Your task to perform on an android device: Open Chrome and go to the settings page Image 0: 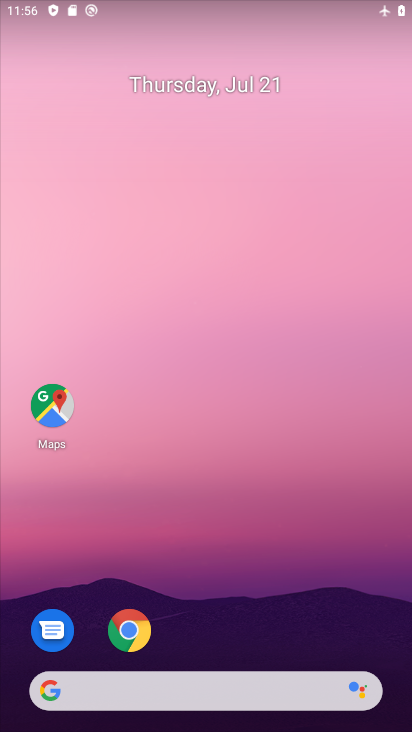
Step 0: press home button
Your task to perform on an android device: Open Chrome and go to the settings page Image 1: 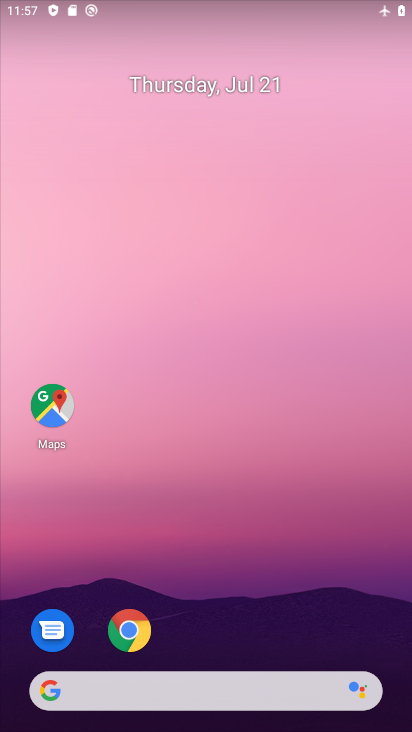
Step 1: drag from (368, 582) to (276, 12)
Your task to perform on an android device: Open Chrome and go to the settings page Image 2: 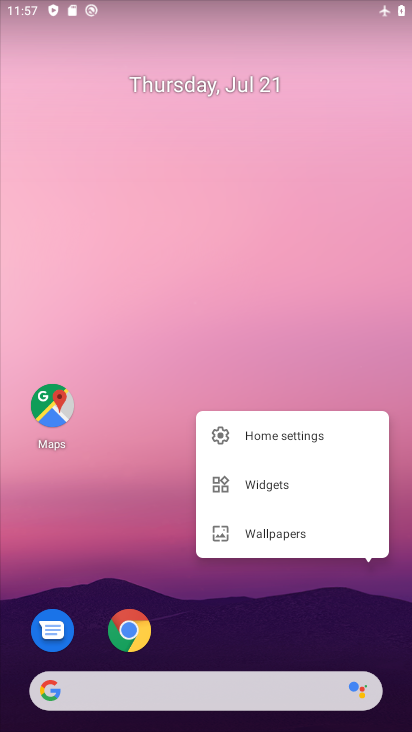
Step 2: click (118, 640)
Your task to perform on an android device: Open Chrome and go to the settings page Image 3: 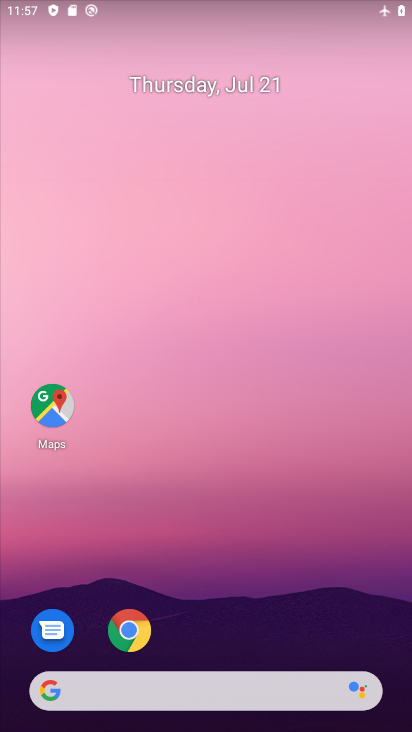
Step 3: click (136, 618)
Your task to perform on an android device: Open Chrome and go to the settings page Image 4: 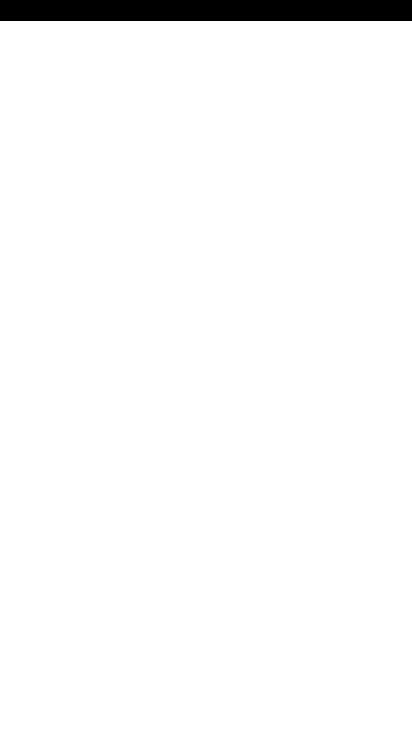
Step 4: click (141, 633)
Your task to perform on an android device: Open Chrome and go to the settings page Image 5: 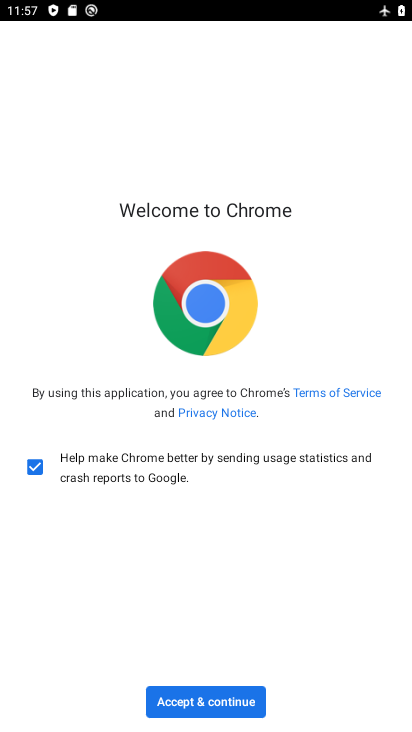
Step 5: click (243, 705)
Your task to perform on an android device: Open Chrome and go to the settings page Image 6: 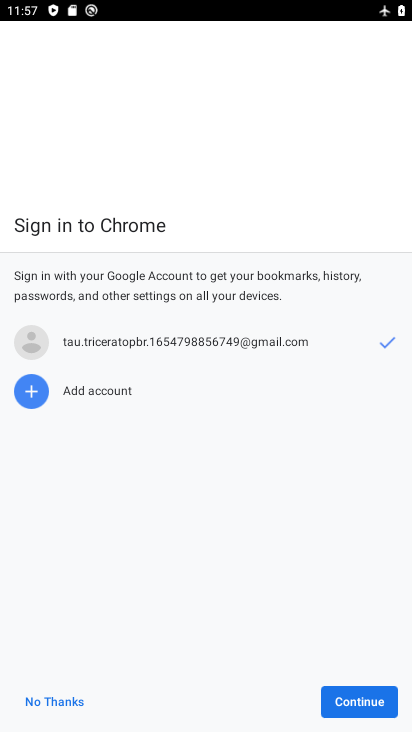
Step 6: click (385, 701)
Your task to perform on an android device: Open Chrome and go to the settings page Image 7: 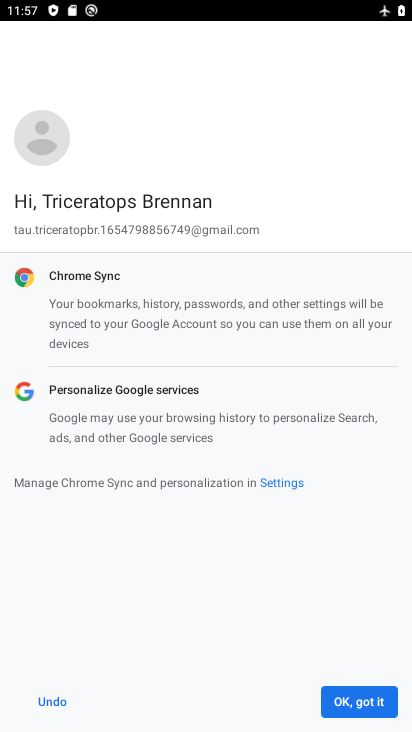
Step 7: click (350, 707)
Your task to perform on an android device: Open Chrome and go to the settings page Image 8: 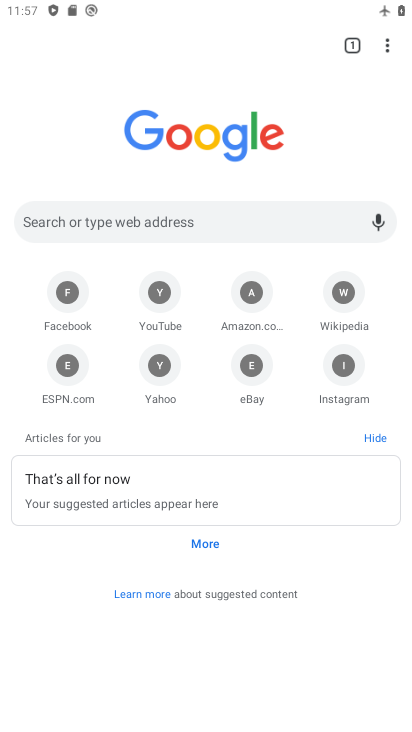
Step 8: task complete